Your task to perform on an android device: manage bookmarks in the chrome app Image 0: 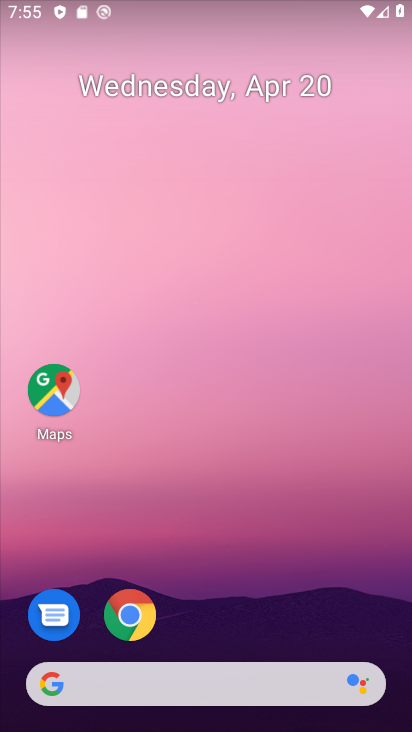
Step 0: click (131, 613)
Your task to perform on an android device: manage bookmarks in the chrome app Image 1: 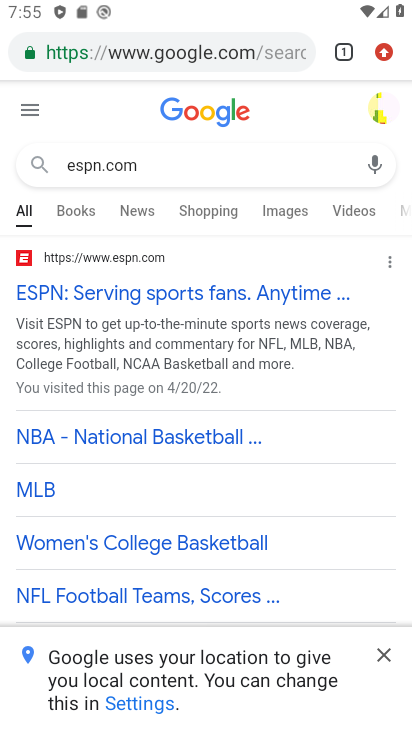
Step 1: click (389, 49)
Your task to perform on an android device: manage bookmarks in the chrome app Image 2: 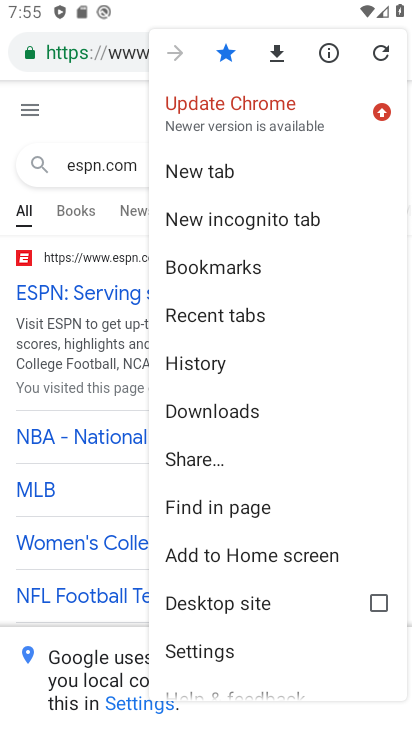
Step 2: click (236, 265)
Your task to perform on an android device: manage bookmarks in the chrome app Image 3: 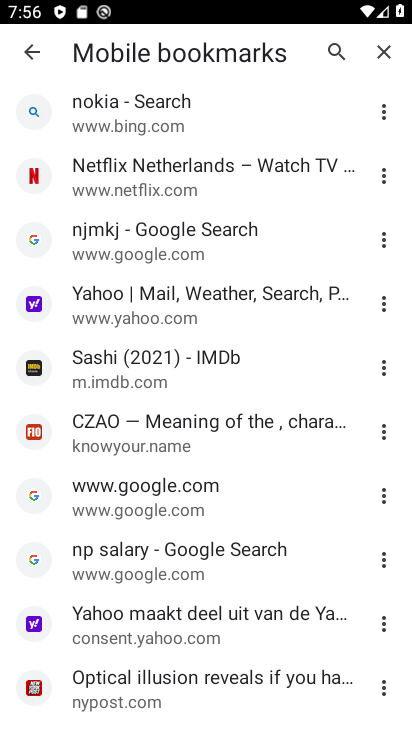
Step 3: click (385, 117)
Your task to perform on an android device: manage bookmarks in the chrome app Image 4: 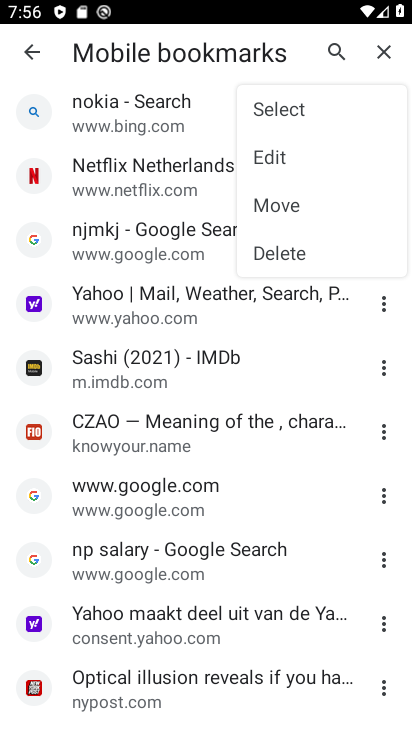
Step 4: click (277, 172)
Your task to perform on an android device: manage bookmarks in the chrome app Image 5: 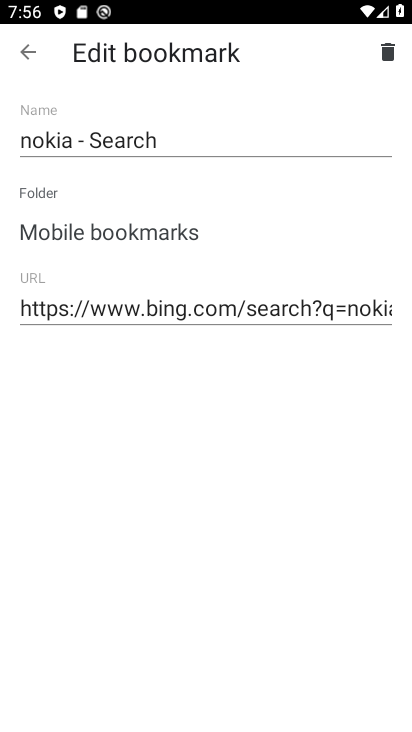
Step 5: click (257, 149)
Your task to perform on an android device: manage bookmarks in the chrome app Image 6: 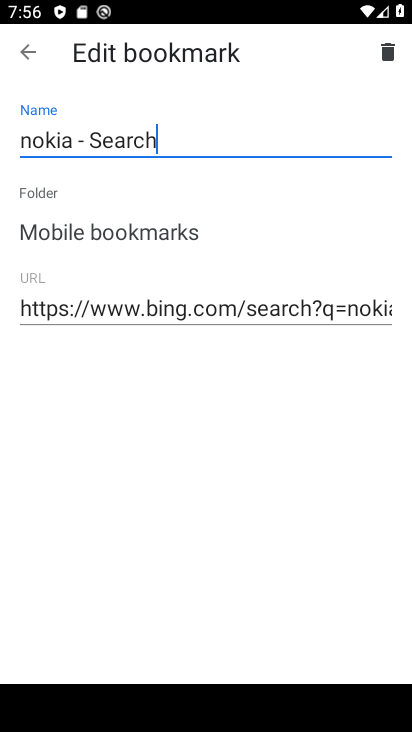
Step 6: click (392, 50)
Your task to perform on an android device: manage bookmarks in the chrome app Image 7: 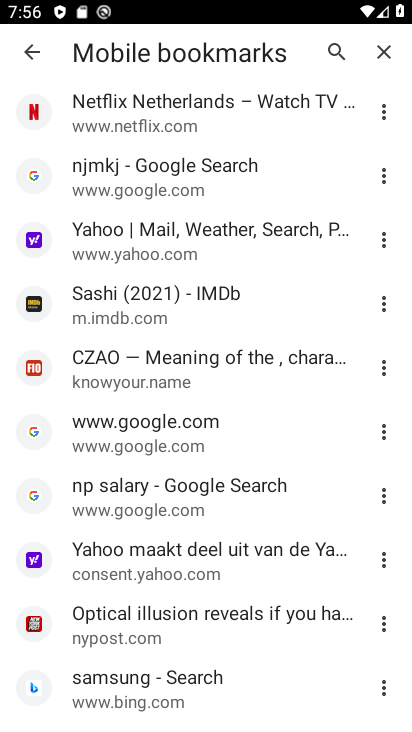
Step 7: task complete